Your task to perform on an android device: Go to sound settings Image 0: 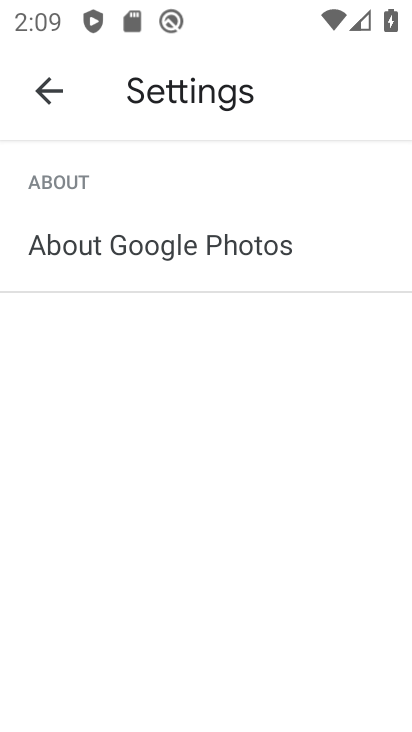
Step 0: press home button
Your task to perform on an android device: Go to sound settings Image 1: 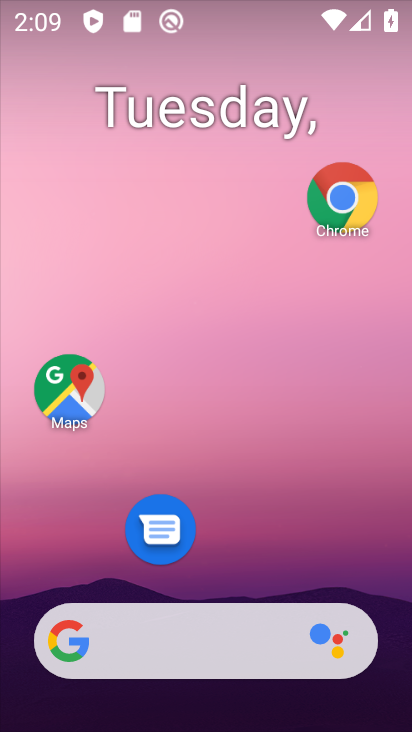
Step 1: drag from (237, 610) to (315, 93)
Your task to perform on an android device: Go to sound settings Image 2: 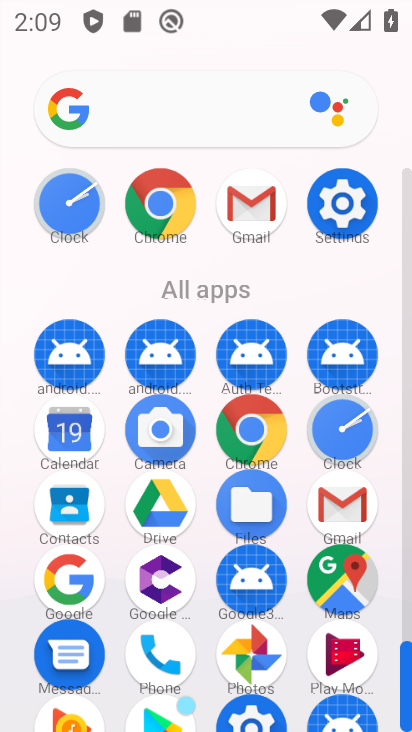
Step 2: click (330, 208)
Your task to perform on an android device: Go to sound settings Image 3: 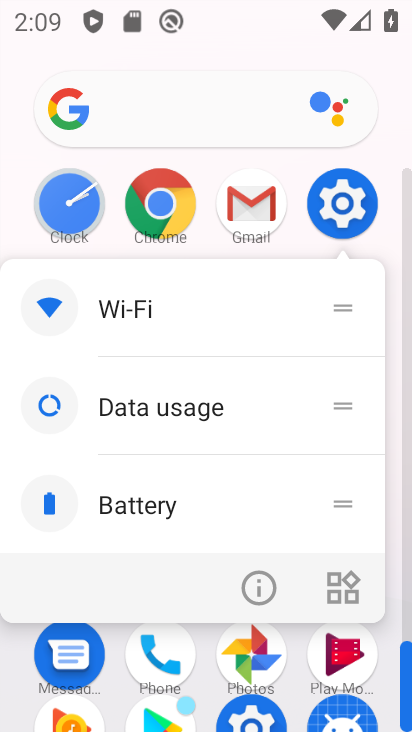
Step 3: click (344, 192)
Your task to perform on an android device: Go to sound settings Image 4: 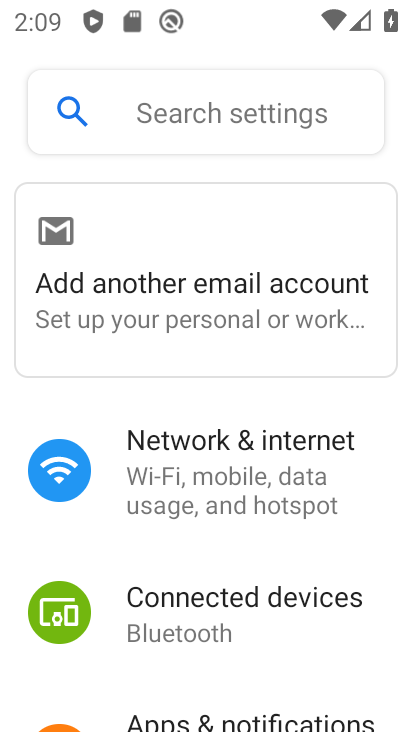
Step 4: drag from (207, 503) to (306, 47)
Your task to perform on an android device: Go to sound settings Image 5: 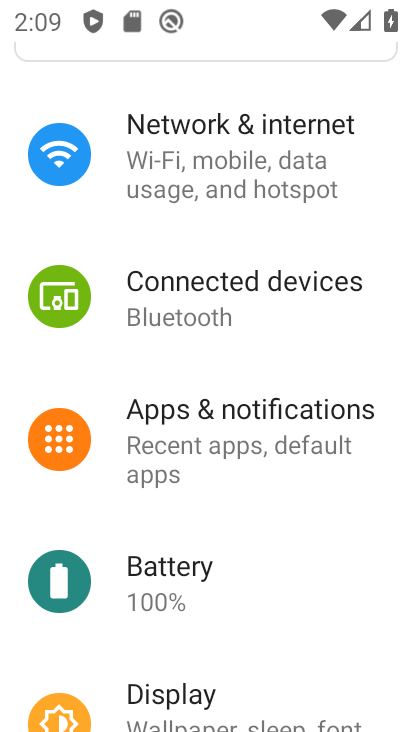
Step 5: drag from (223, 515) to (357, 12)
Your task to perform on an android device: Go to sound settings Image 6: 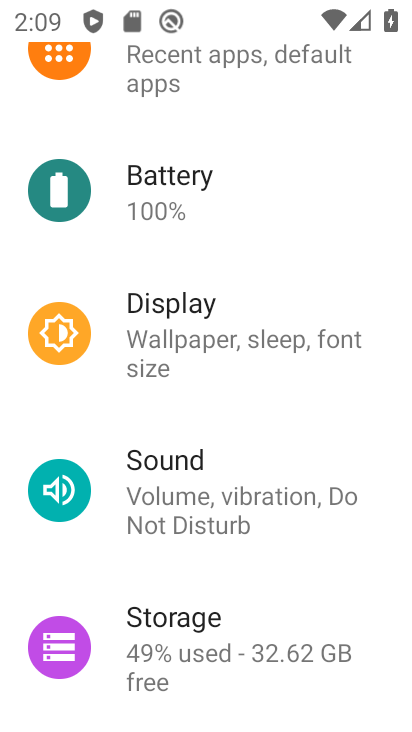
Step 6: click (202, 490)
Your task to perform on an android device: Go to sound settings Image 7: 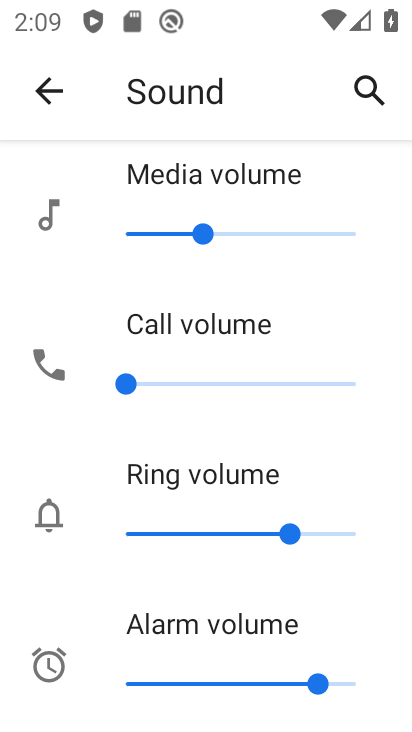
Step 7: task complete